Your task to perform on an android device: allow notifications from all sites in the chrome app Image 0: 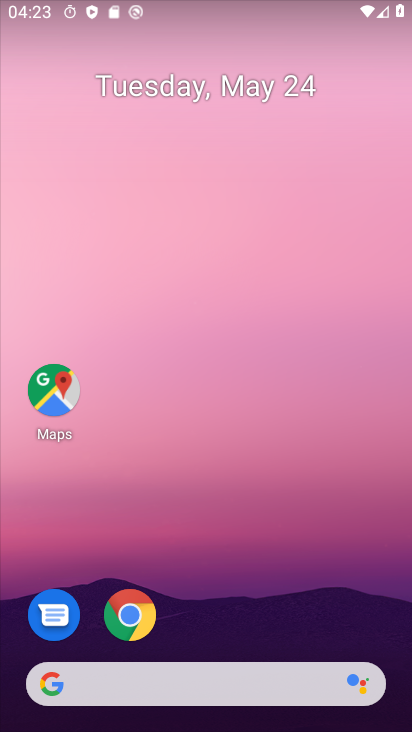
Step 0: click (123, 607)
Your task to perform on an android device: allow notifications from all sites in the chrome app Image 1: 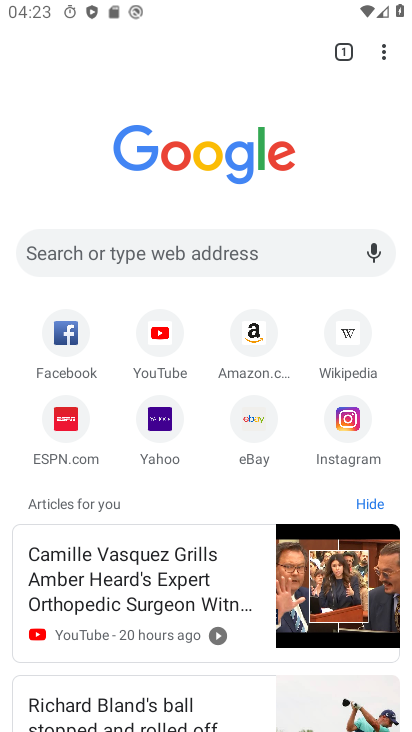
Step 1: drag from (381, 50) to (197, 430)
Your task to perform on an android device: allow notifications from all sites in the chrome app Image 2: 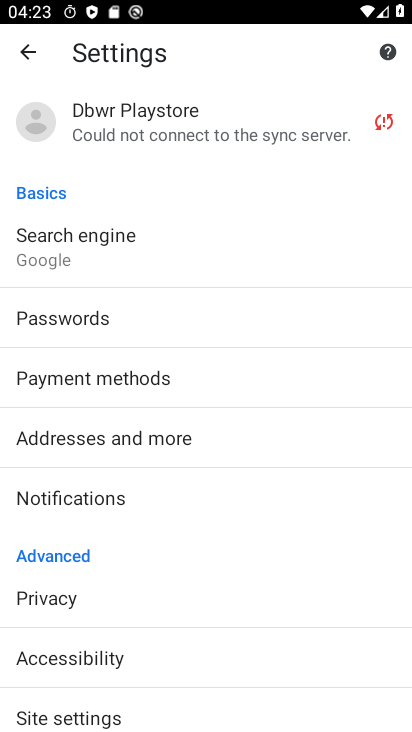
Step 2: click (94, 709)
Your task to perform on an android device: allow notifications from all sites in the chrome app Image 3: 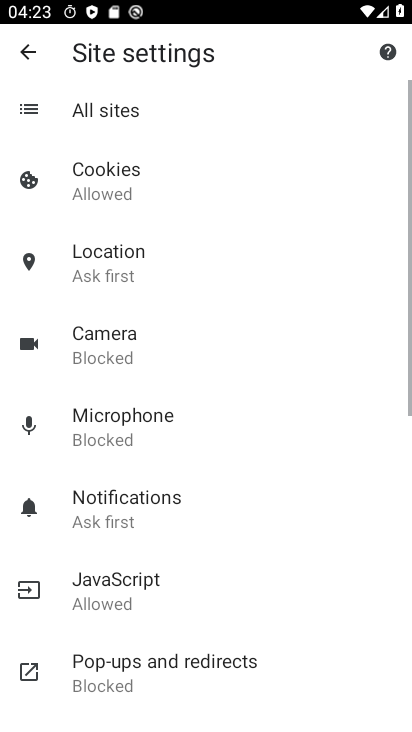
Step 3: click (24, 44)
Your task to perform on an android device: allow notifications from all sites in the chrome app Image 4: 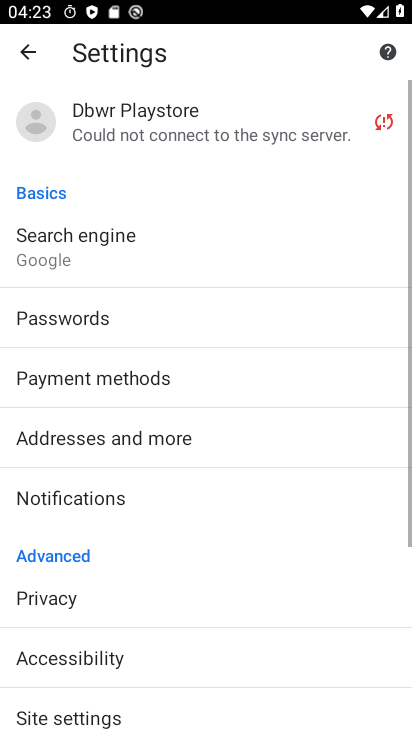
Step 4: click (59, 508)
Your task to perform on an android device: allow notifications from all sites in the chrome app Image 5: 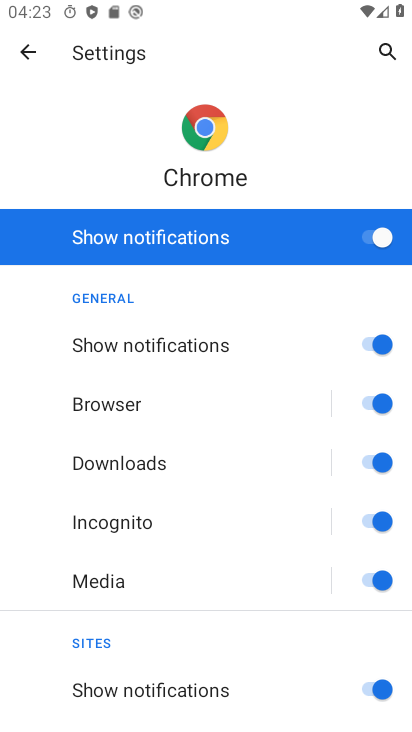
Step 5: task complete